Your task to perform on an android device: Search for logitech g pro on target.com, select the first entry, and add it to the cart. Image 0: 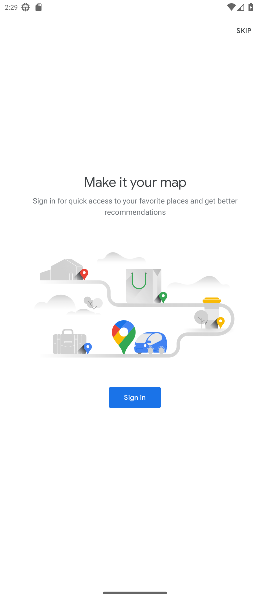
Step 0: press home button
Your task to perform on an android device: Search for logitech g pro on target.com, select the first entry, and add it to the cart. Image 1: 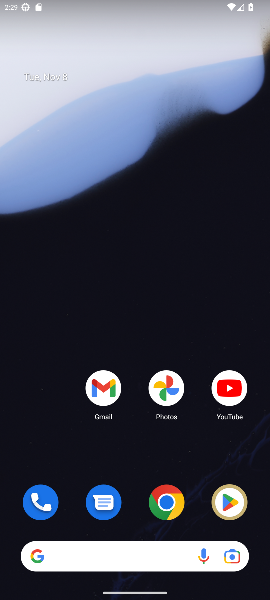
Step 1: drag from (121, 547) to (129, 26)
Your task to perform on an android device: Search for logitech g pro on target.com, select the first entry, and add it to the cart. Image 2: 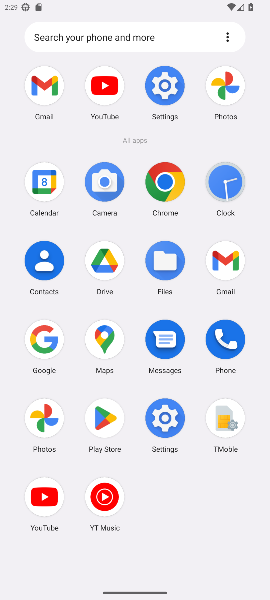
Step 2: click (39, 343)
Your task to perform on an android device: Search for logitech g pro on target.com, select the first entry, and add it to the cart. Image 3: 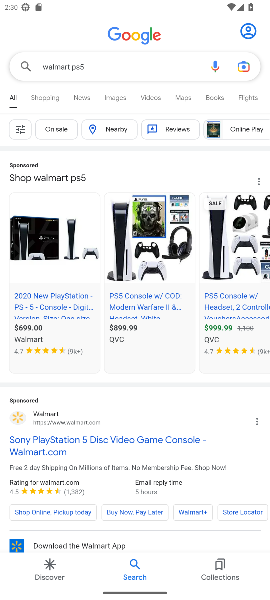
Step 3: click (111, 66)
Your task to perform on an android device: Search for logitech g pro on target.com, select the first entry, and add it to the cart. Image 4: 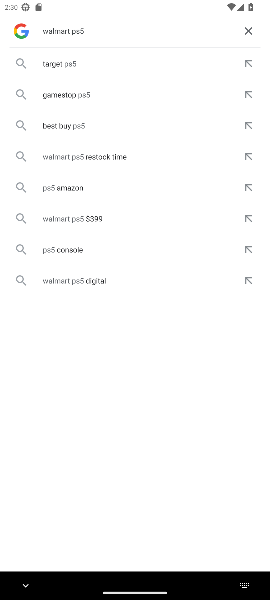
Step 4: click (243, 34)
Your task to perform on an android device: Search for logitech g pro on target.com, select the first entry, and add it to the cart. Image 5: 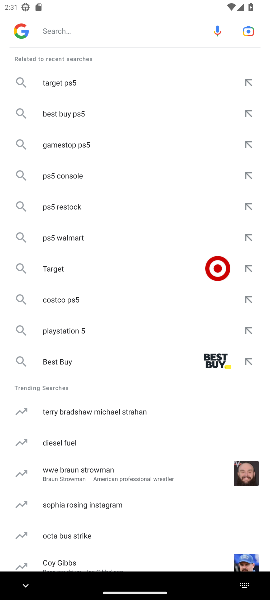
Step 5: click (77, 27)
Your task to perform on an android device: Search for logitech g pro on target.com, select the first entry, and add it to the cart. Image 6: 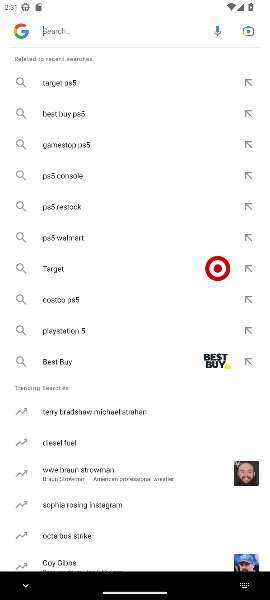
Step 6: type "target "
Your task to perform on an android device: Search for logitech g pro on target.com, select the first entry, and add it to the cart. Image 7: 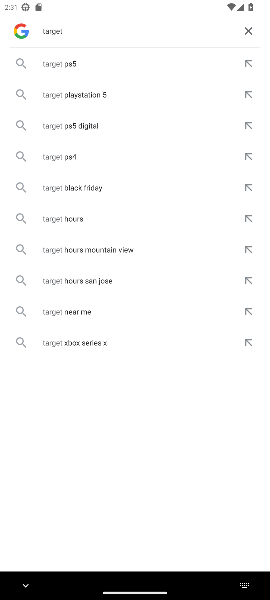
Step 7: click (61, 68)
Your task to perform on an android device: Search for logitech g pro on target.com, select the first entry, and add it to the cart. Image 8: 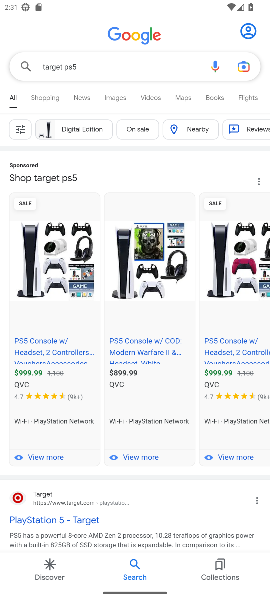
Step 8: click (21, 496)
Your task to perform on an android device: Search for logitech g pro on target.com, select the first entry, and add it to the cart. Image 9: 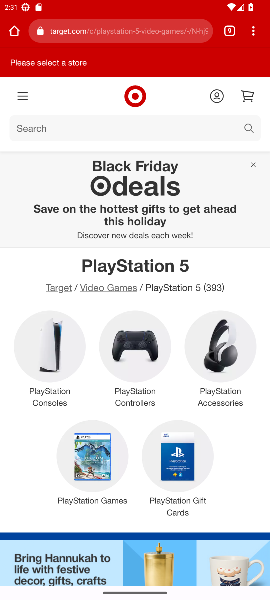
Step 9: click (86, 126)
Your task to perform on an android device: Search for logitech g pro on target.com, select the first entry, and add it to the cart. Image 10: 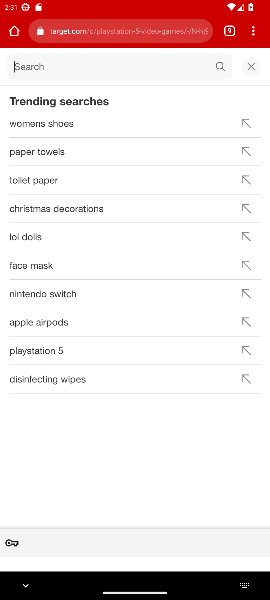
Step 10: type "ogitech g pro  "
Your task to perform on an android device: Search for logitech g pro on target.com, select the first entry, and add it to the cart. Image 11: 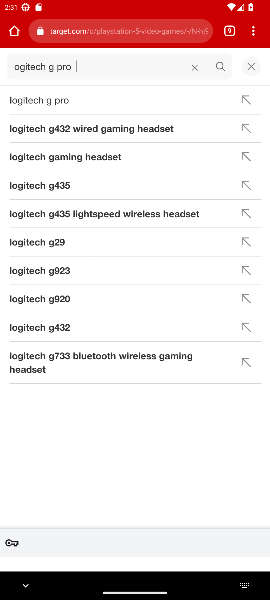
Step 11: click (72, 102)
Your task to perform on an android device: Search for logitech g pro on target.com, select the first entry, and add it to the cart. Image 12: 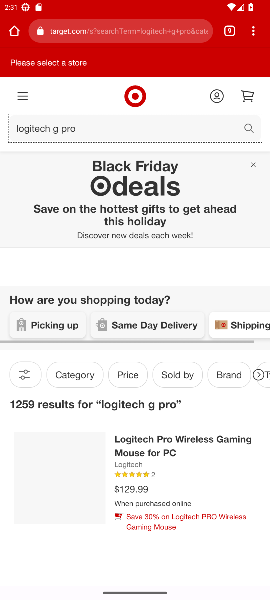
Step 12: drag from (174, 488) to (181, 207)
Your task to perform on an android device: Search for logitech g pro on target.com, select the first entry, and add it to the cart. Image 13: 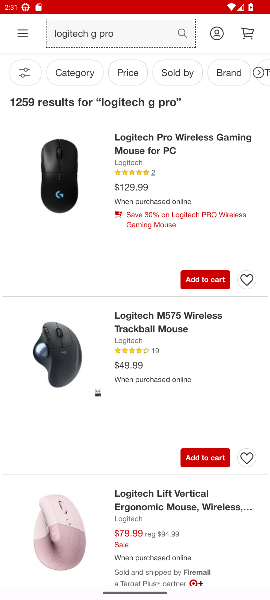
Step 13: click (197, 277)
Your task to perform on an android device: Search for logitech g pro on target.com, select the first entry, and add it to the cart. Image 14: 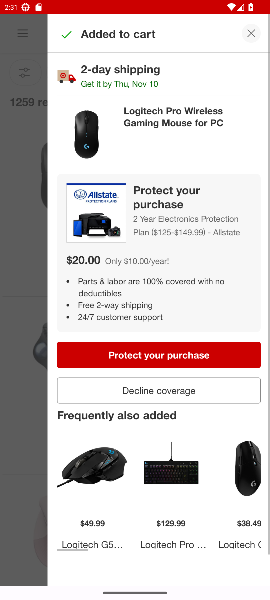
Step 14: task complete